Your task to perform on an android device: Search for Mexican restaurants on Maps Image 0: 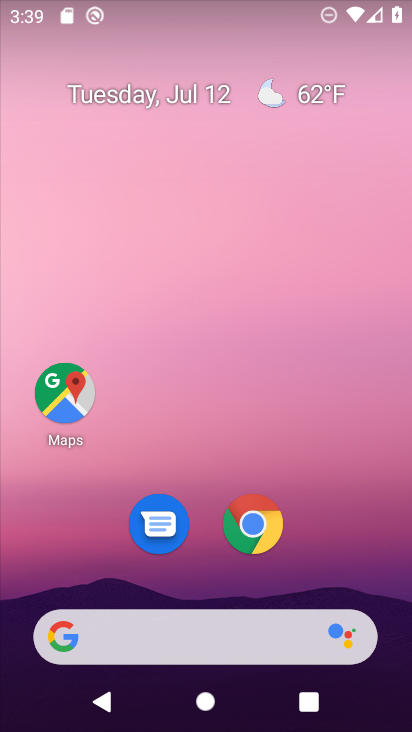
Step 0: click (71, 390)
Your task to perform on an android device: Search for Mexican restaurants on Maps Image 1: 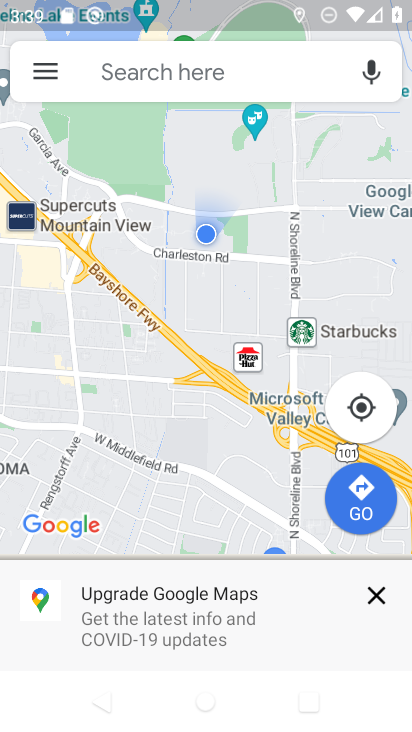
Step 1: click (151, 68)
Your task to perform on an android device: Search for Mexican restaurants on Maps Image 2: 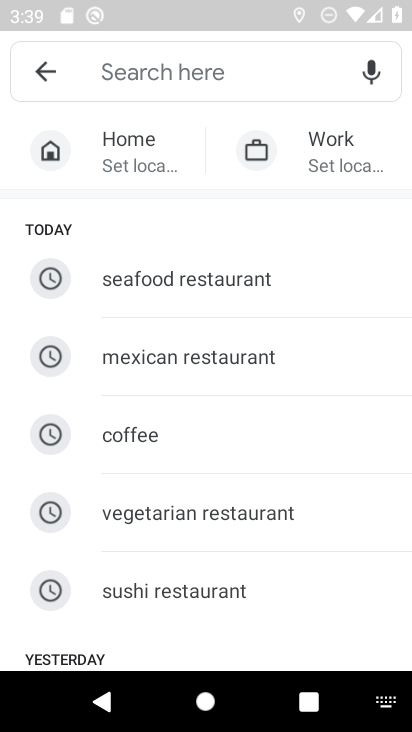
Step 2: click (184, 358)
Your task to perform on an android device: Search for Mexican restaurants on Maps Image 3: 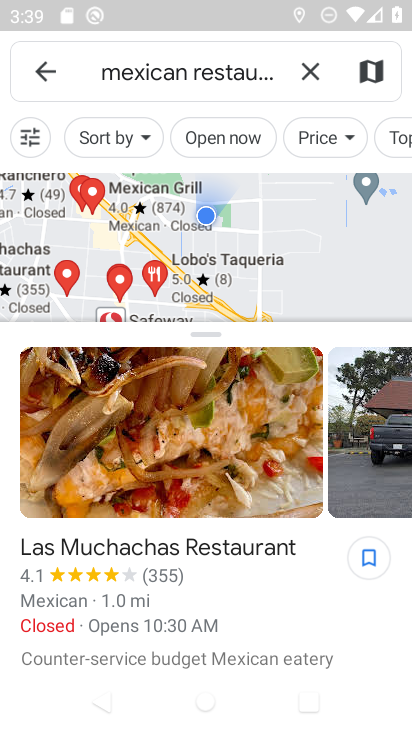
Step 3: task complete